Your task to perform on an android device: What's the weather today? Image 0: 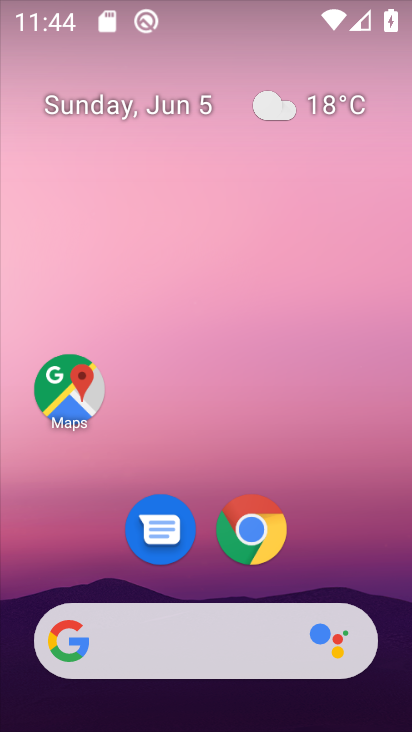
Step 0: click (188, 648)
Your task to perform on an android device: What's the weather today? Image 1: 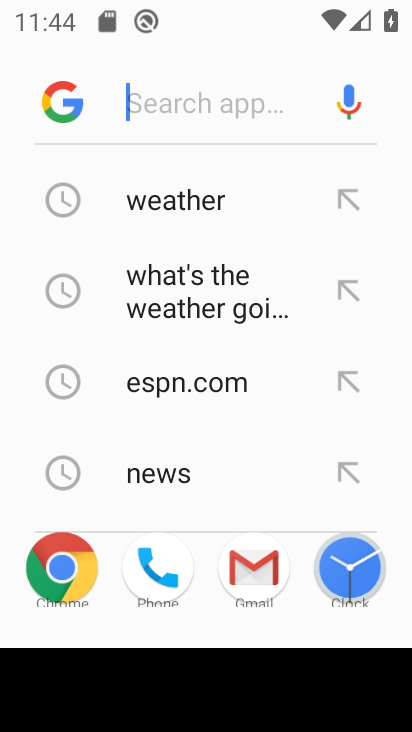
Step 1: type "what's the weather today"
Your task to perform on an android device: What's the weather today? Image 2: 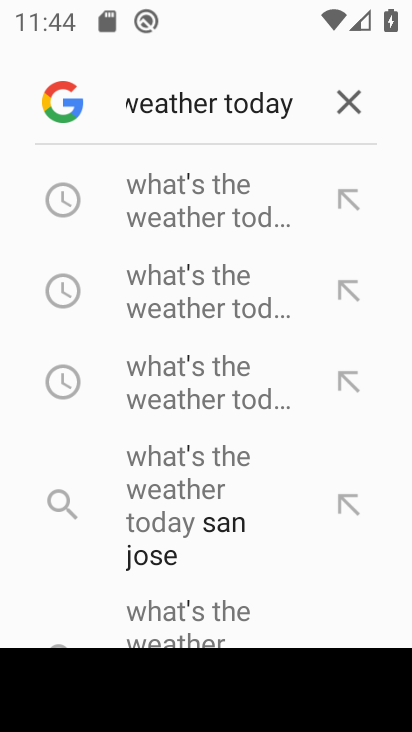
Step 2: click (163, 210)
Your task to perform on an android device: What's the weather today? Image 3: 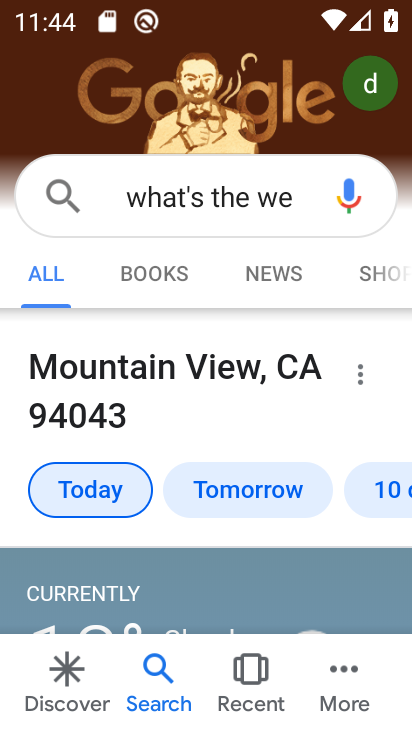
Step 3: task complete